Your task to perform on an android device: turn off wifi Image 0: 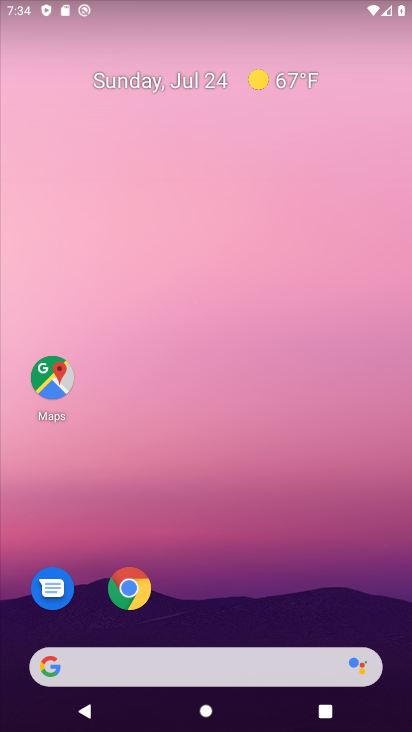
Step 0: drag from (193, 637) to (221, 364)
Your task to perform on an android device: turn off wifi Image 1: 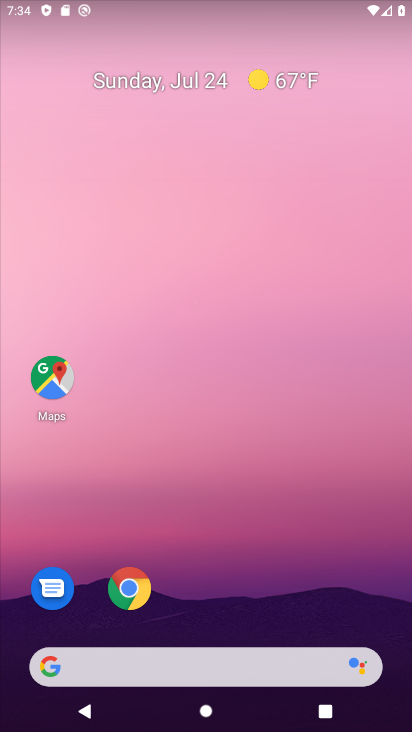
Step 1: drag from (237, 607) to (300, 180)
Your task to perform on an android device: turn off wifi Image 2: 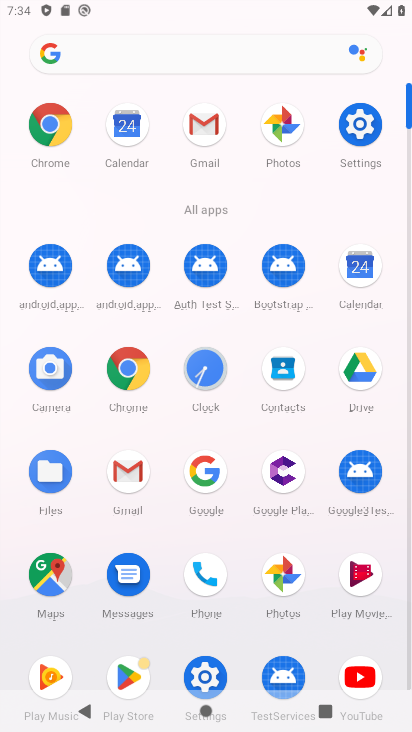
Step 2: click (367, 129)
Your task to perform on an android device: turn off wifi Image 3: 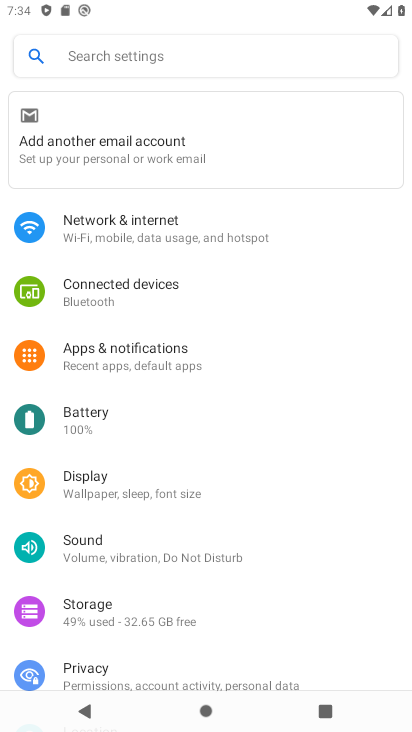
Step 3: click (135, 222)
Your task to perform on an android device: turn off wifi Image 4: 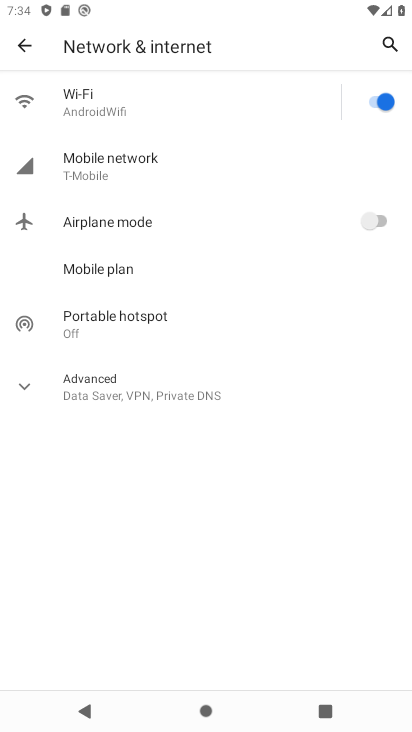
Step 4: click (376, 106)
Your task to perform on an android device: turn off wifi Image 5: 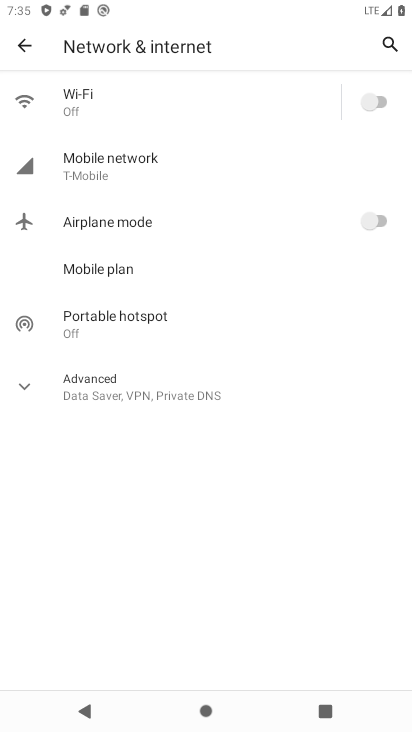
Step 5: task complete